Your task to perform on an android device: Add "jbl flip 4" to the cart on newegg, then select checkout. Image 0: 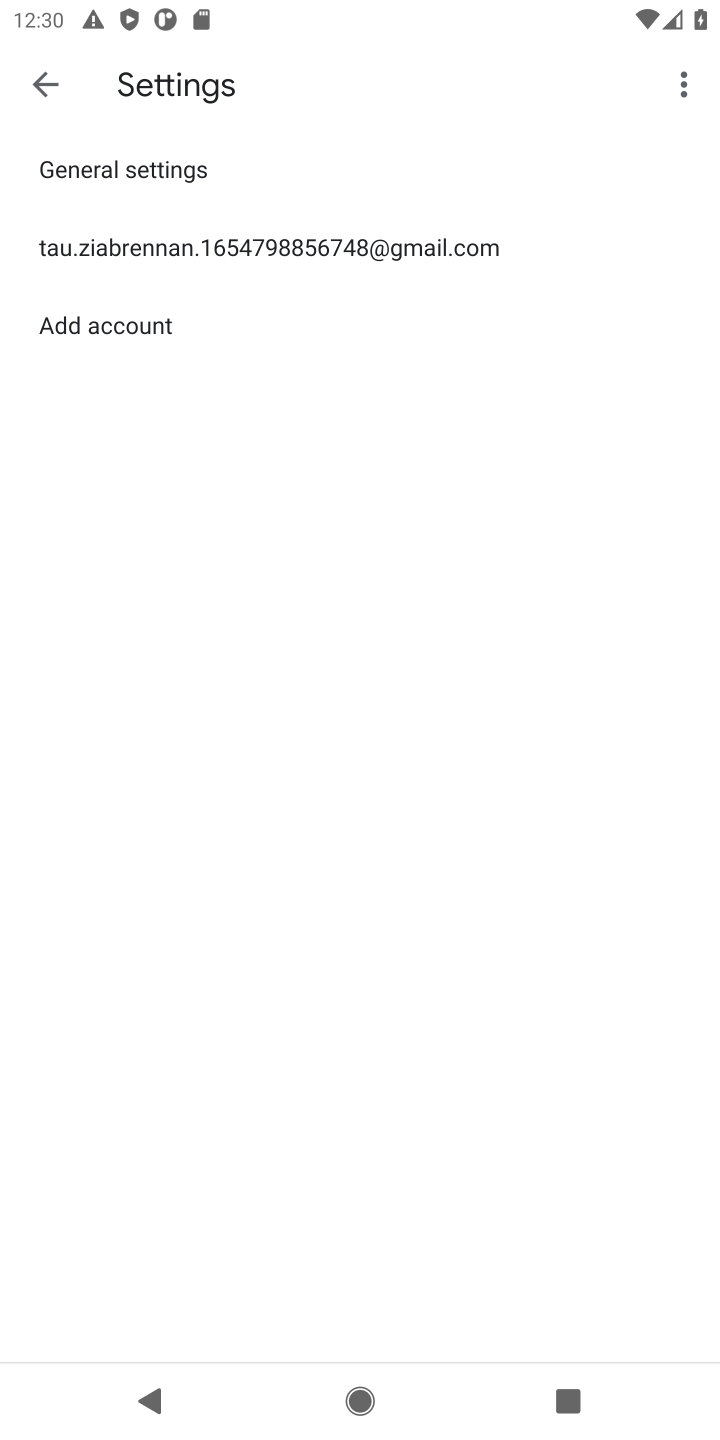
Step 0: press home button
Your task to perform on an android device: Add "jbl flip 4" to the cart on newegg, then select checkout. Image 1: 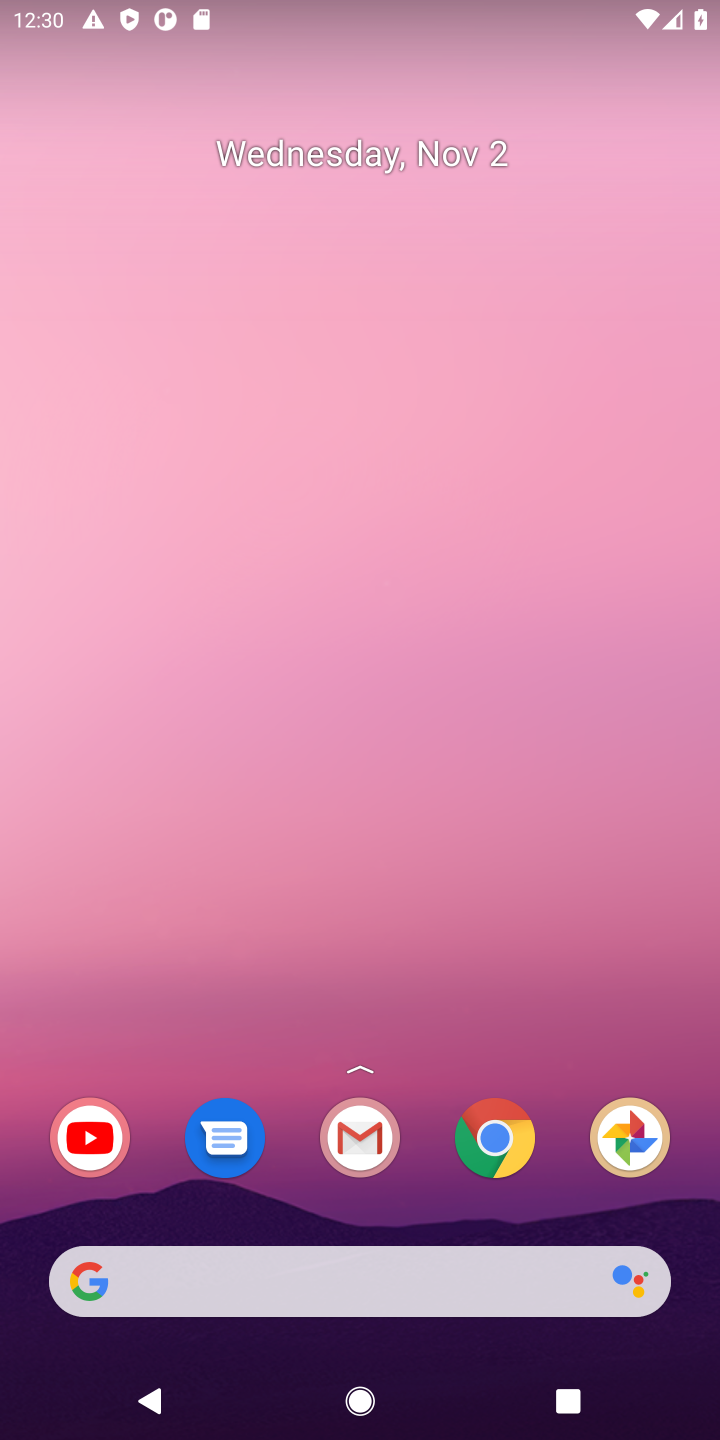
Step 1: click (280, 1275)
Your task to perform on an android device: Add "jbl flip 4" to the cart on newegg, then select checkout. Image 2: 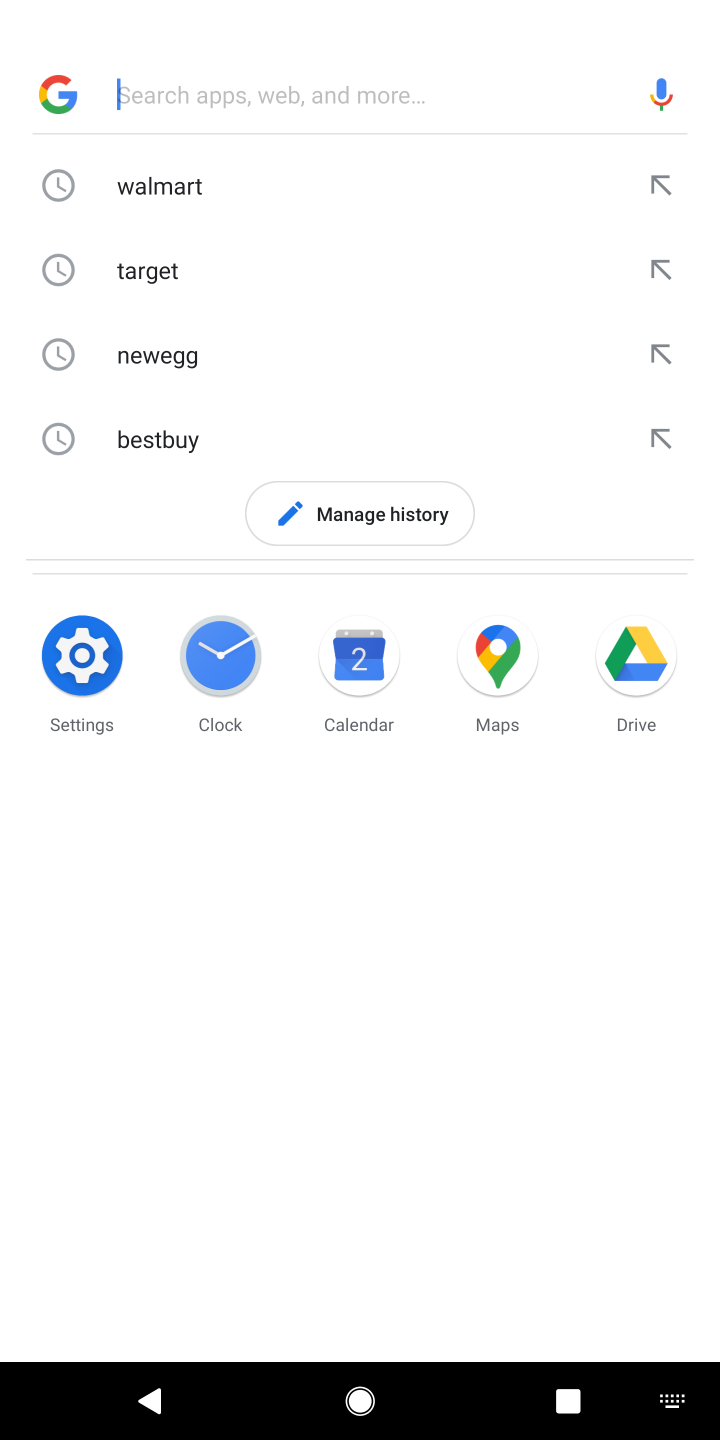
Step 2: click (229, 358)
Your task to perform on an android device: Add "jbl flip 4" to the cart on newegg, then select checkout. Image 3: 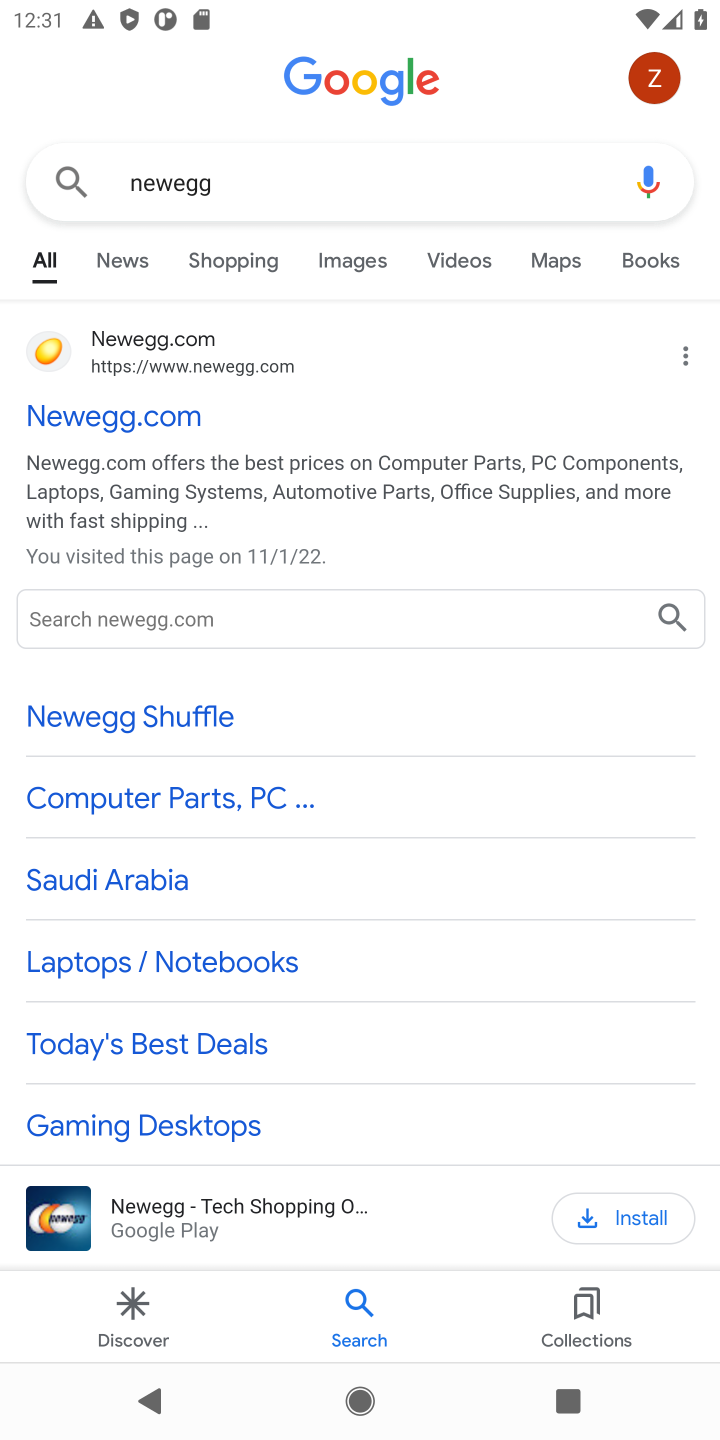
Step 3: click (139, 412)
Your task to perform on an android device: Add "jbl flip 4" to the cart on newegg, then select checkout. Image 4: 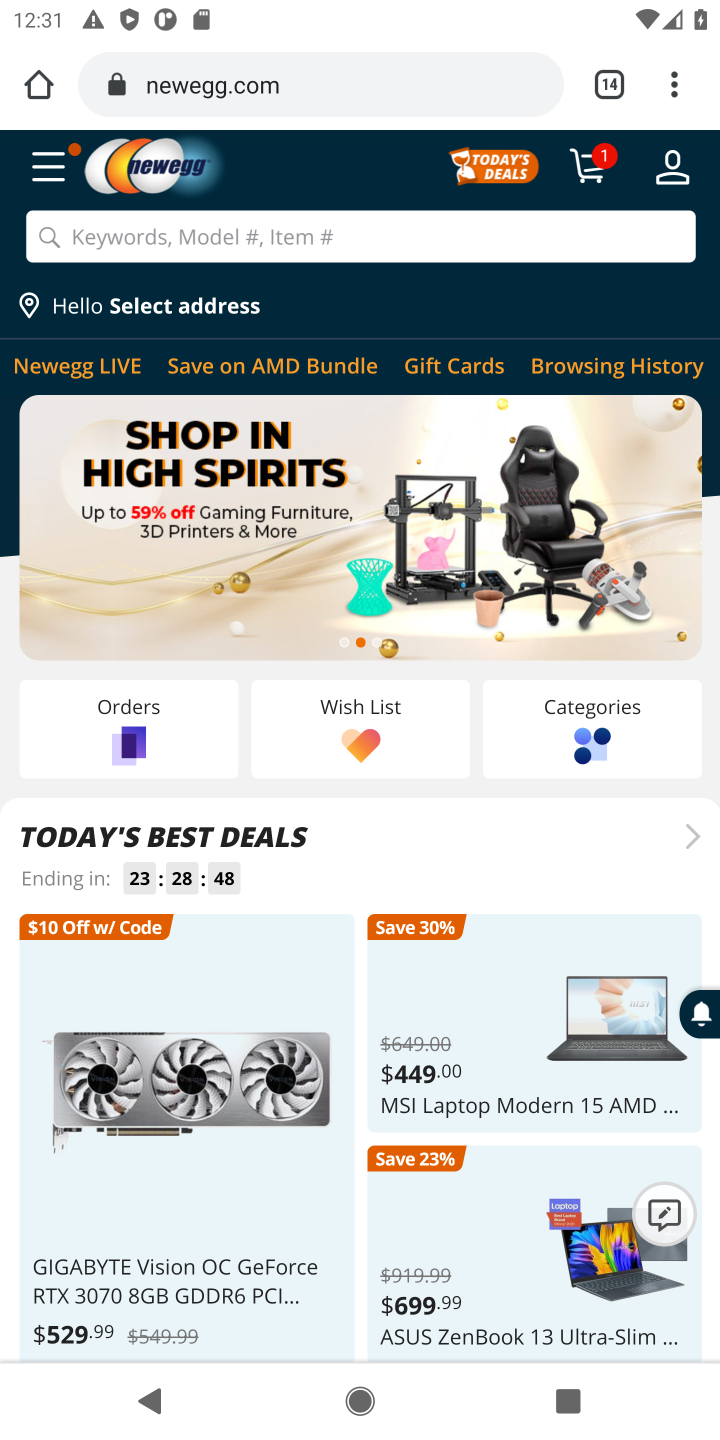
Step 4: click (110, 236)
Your task to perform on an android device: Add "jbl flip 4" to the cart on newegg, then select checkout. Image 5: 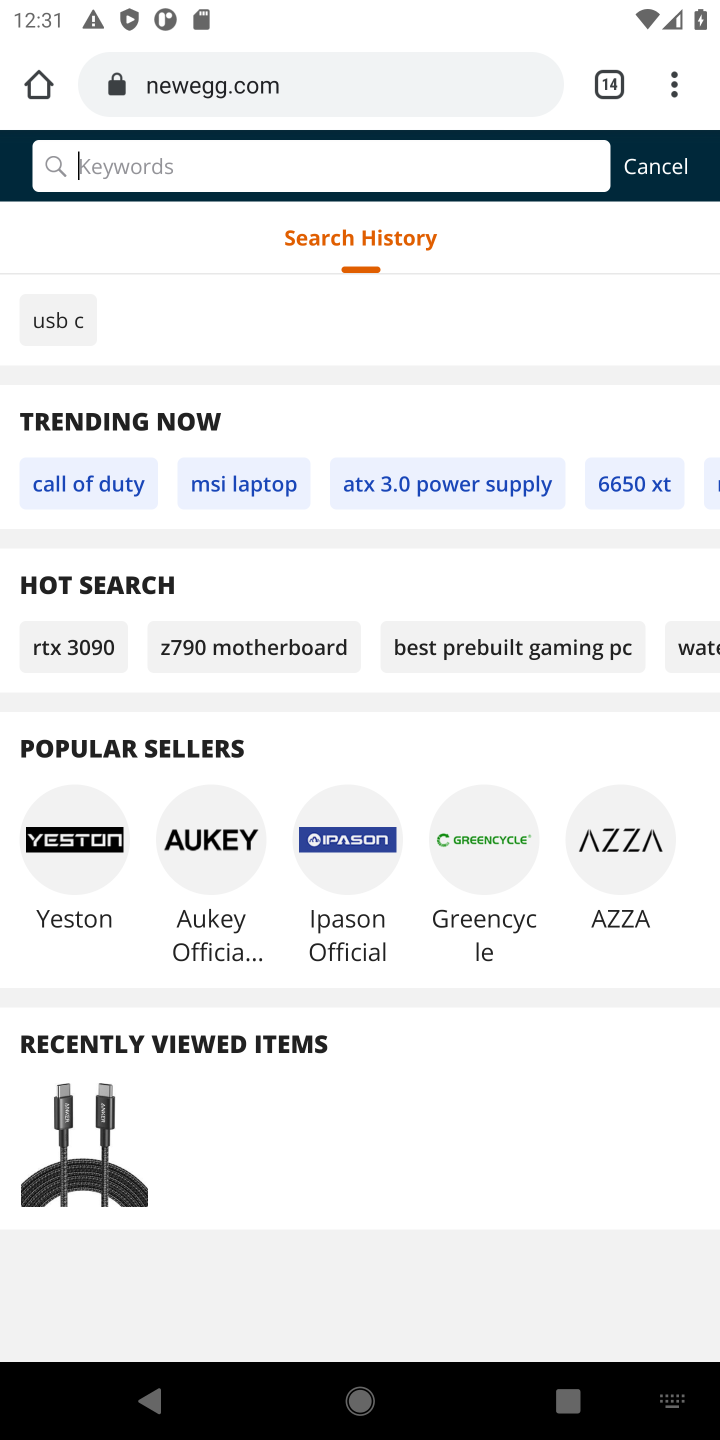
Step 5: press enter
Your task to perform on an android device: Add "jbl flip 4" to the cart on newegg, then select checkout. Image 6: 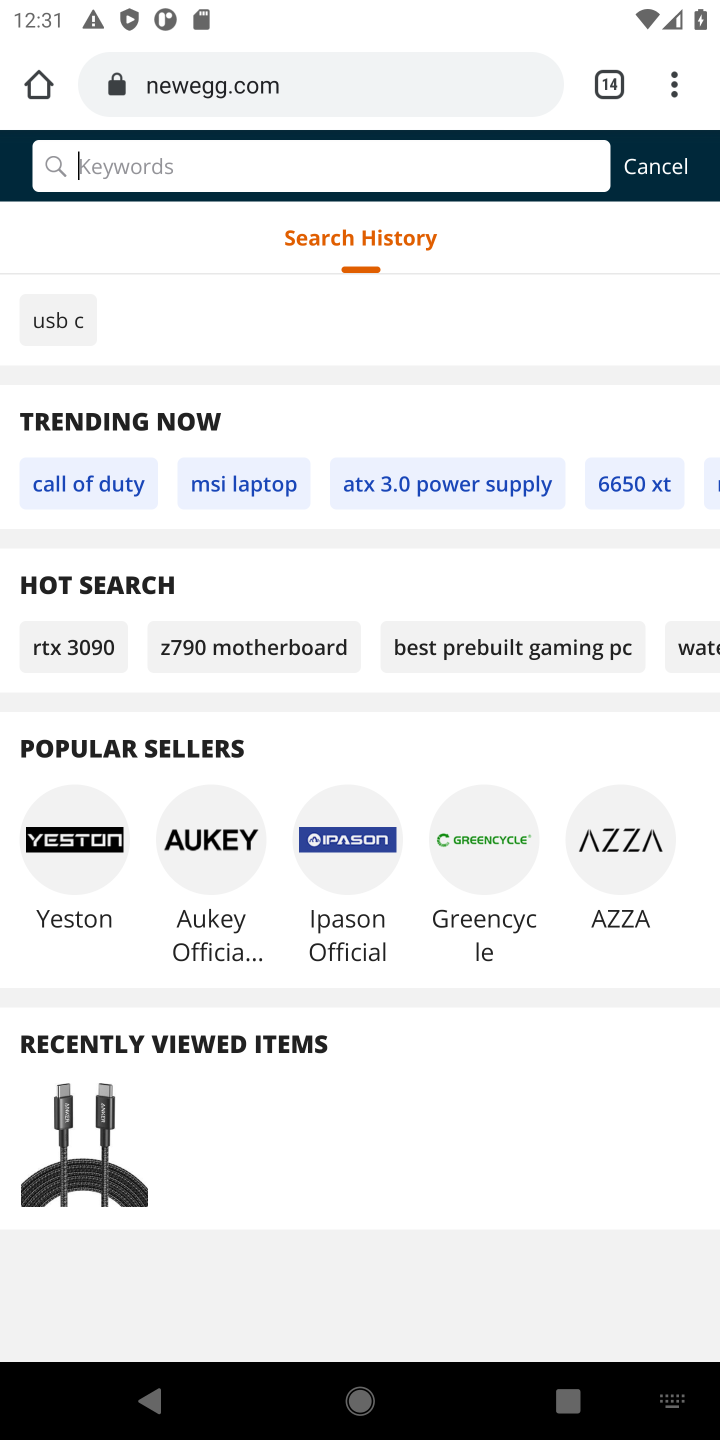
Step 6: type "jbl flip 4"
Your task to perform on an android device: Add "jbl flip 4" to the cart on newegg, then select checkout. Image 7: 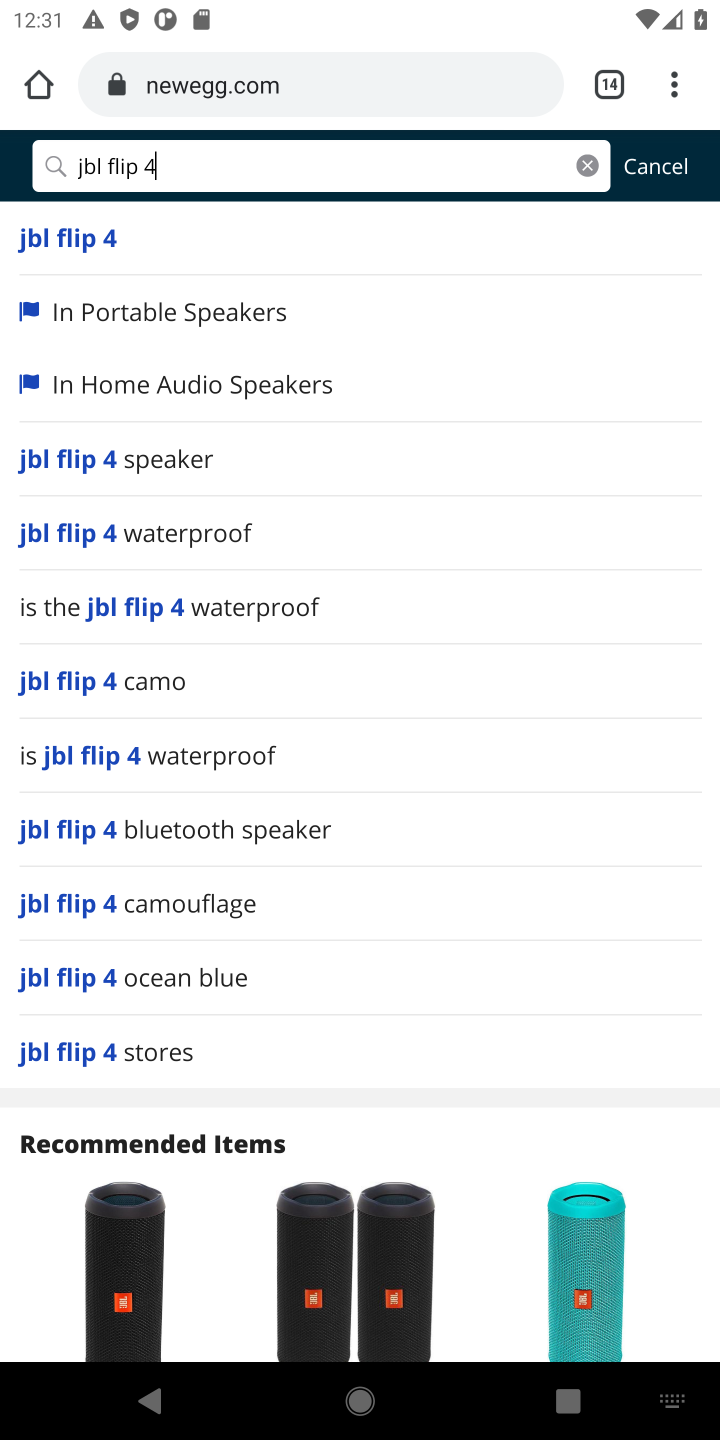
Step 7: click (101, 253)
Your task to perform on an android device: Add "jbl flip 4" to the cart on newegg, then select checkout. Image 8: 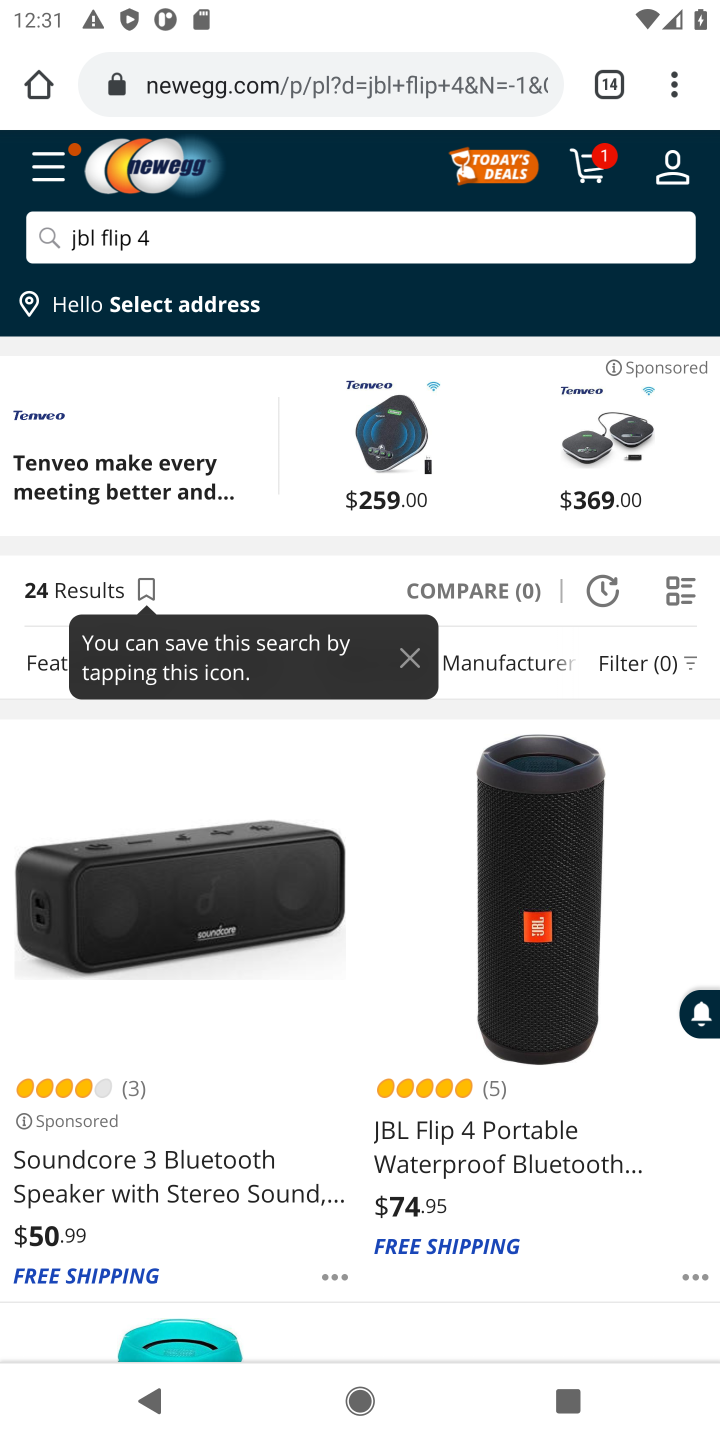
Step 8: drag from (311, 1132) to (375, 711)
Your task to perform on an android device: Add "jbl flip 4" to the cart on newegg, then select checkout. Image 9: 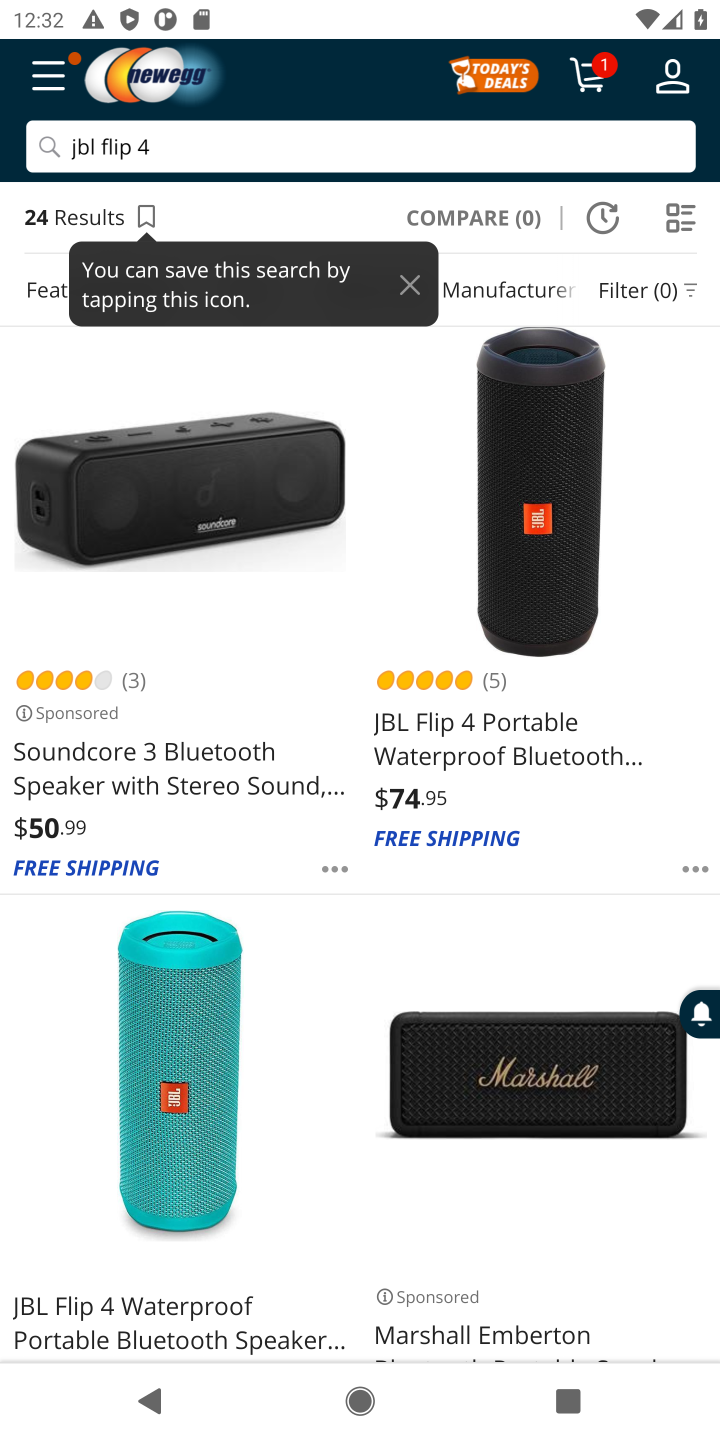
Step 9: click (154, 1276)
Your task to perform on an android device: Add "jbl flip 4" to the cart on newegg, then select checkout. Image 10: 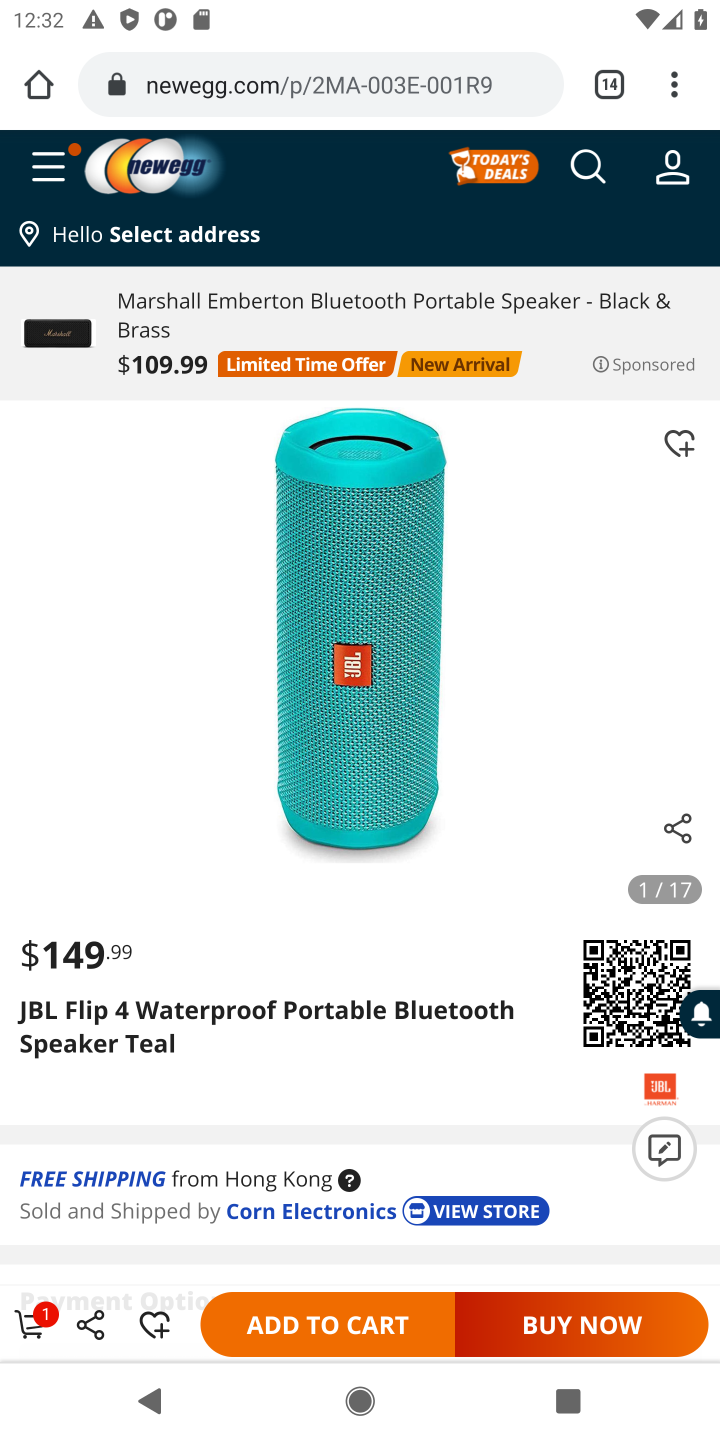
Step 10: click (306, 1316)
Your task to perform on an android device: Add "jbl flip 4" to the cart on newegg, then select checkout. Image 11: 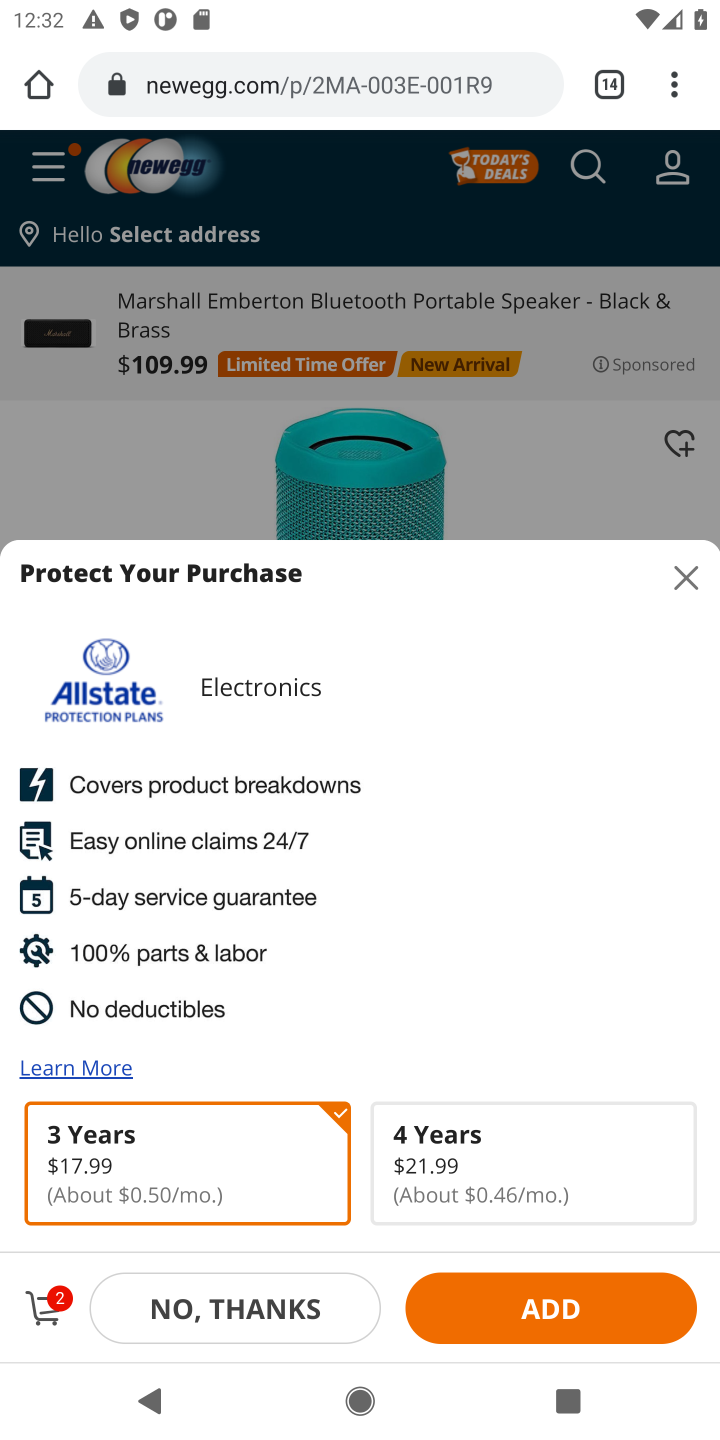
Step 11: click (198, 1309)
Your task to perform on an android device: Add "jbl flip 4" to the cart on newegg, then select checkout. Image 12: 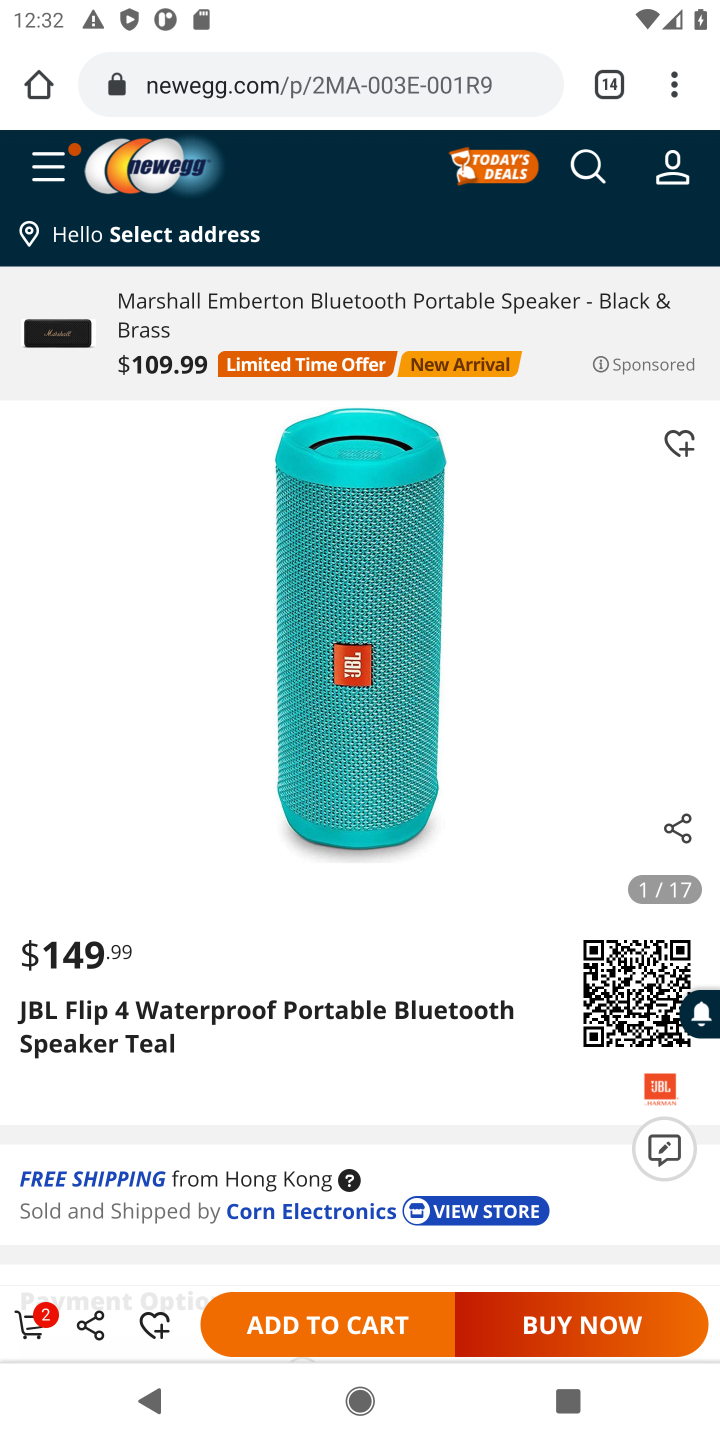
Step 12: click (32, 1317)
Your task to perform on an android device: Add "jbl flip 4" to the cart on newegg, then select checkout. Image 13: 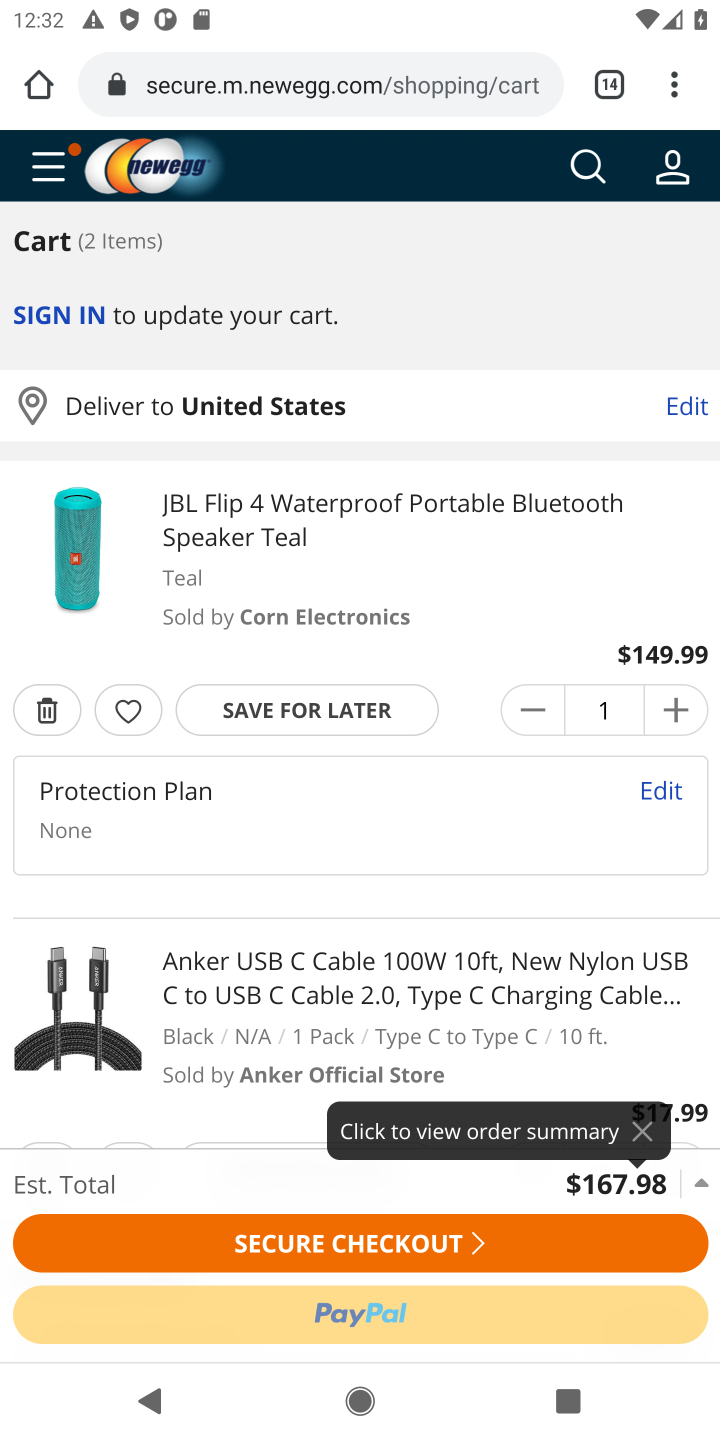
Step 13: click (354, 1243)
Your task to perform on an android device: Add "jbl flip 4" to the cart on newegg, then select checkout. Image 14: 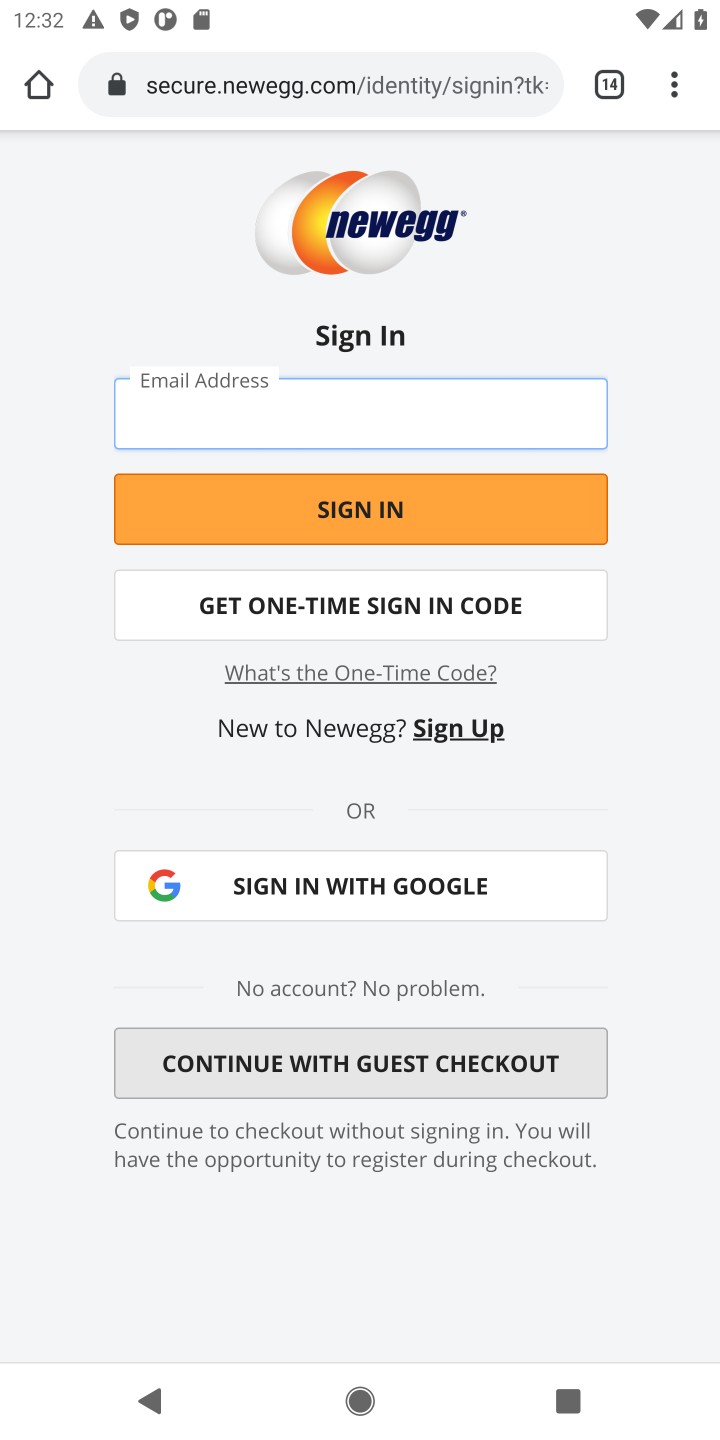
Step 14: task complete